Your task to perform on an android device: Search for bose soundsport free on costco, select the first entry, and add it to the cart. Image 0: 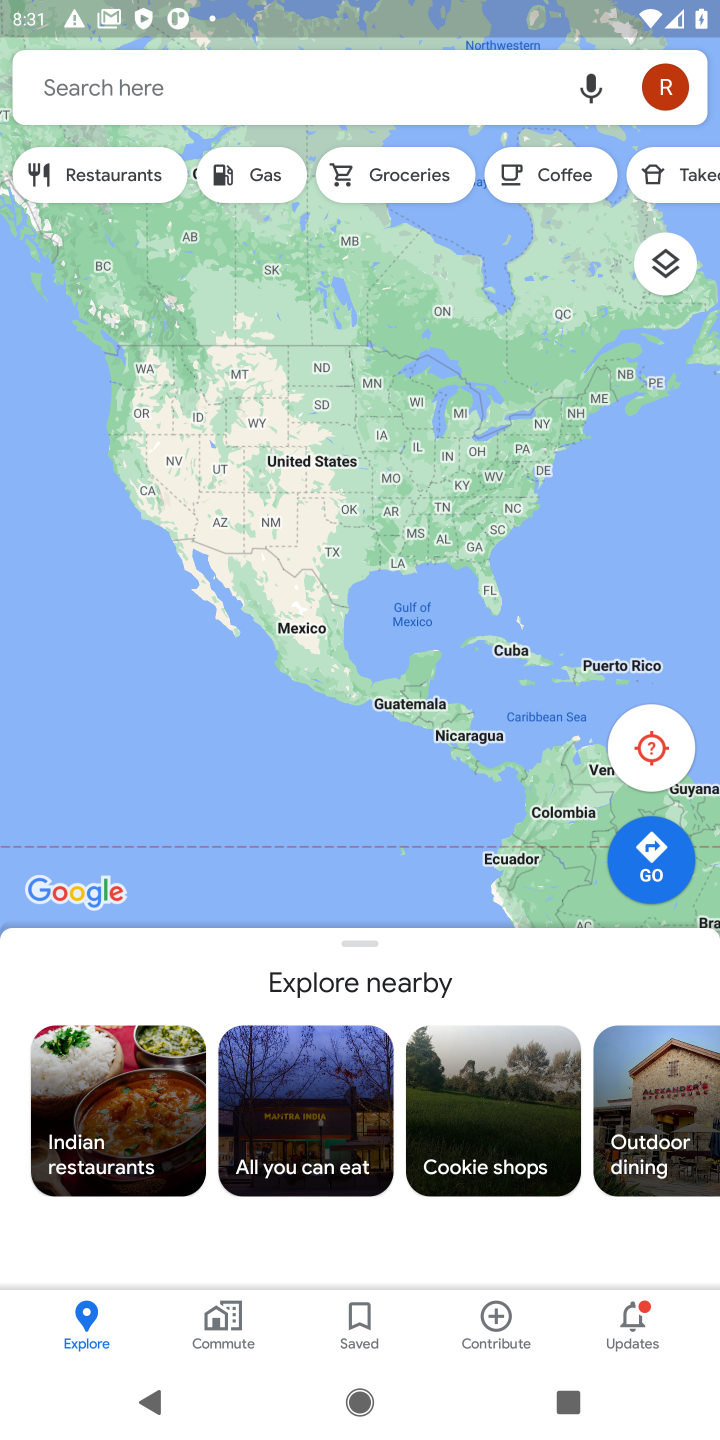
Step 0: press home button
Your task to perform on an android device: Search for bose soundsport free on costco, select the first entry, and add it to the cart. Image 1: 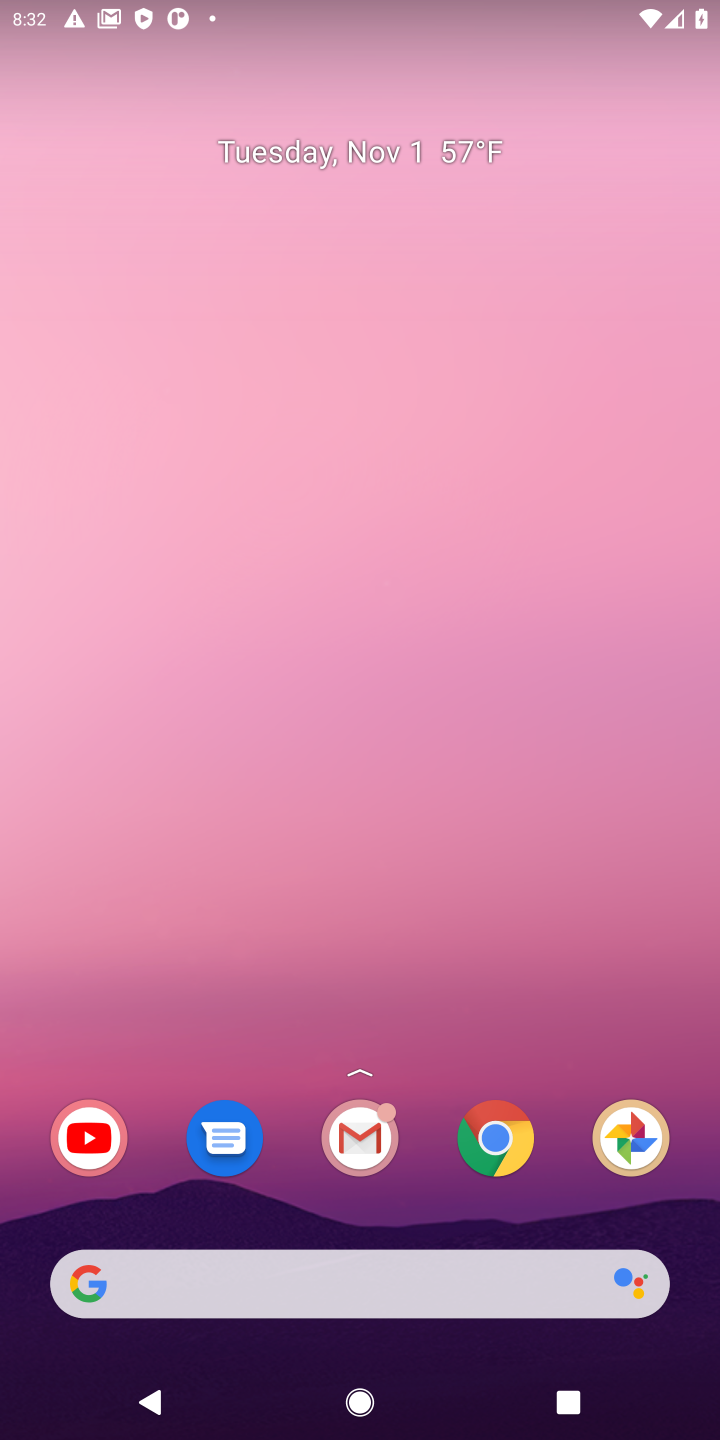
Step 1: click (480, 1158)
Your task to perform on an android device: Search for bose soundsport free on costco, select the first entry, and add it to the cart. Image 2: 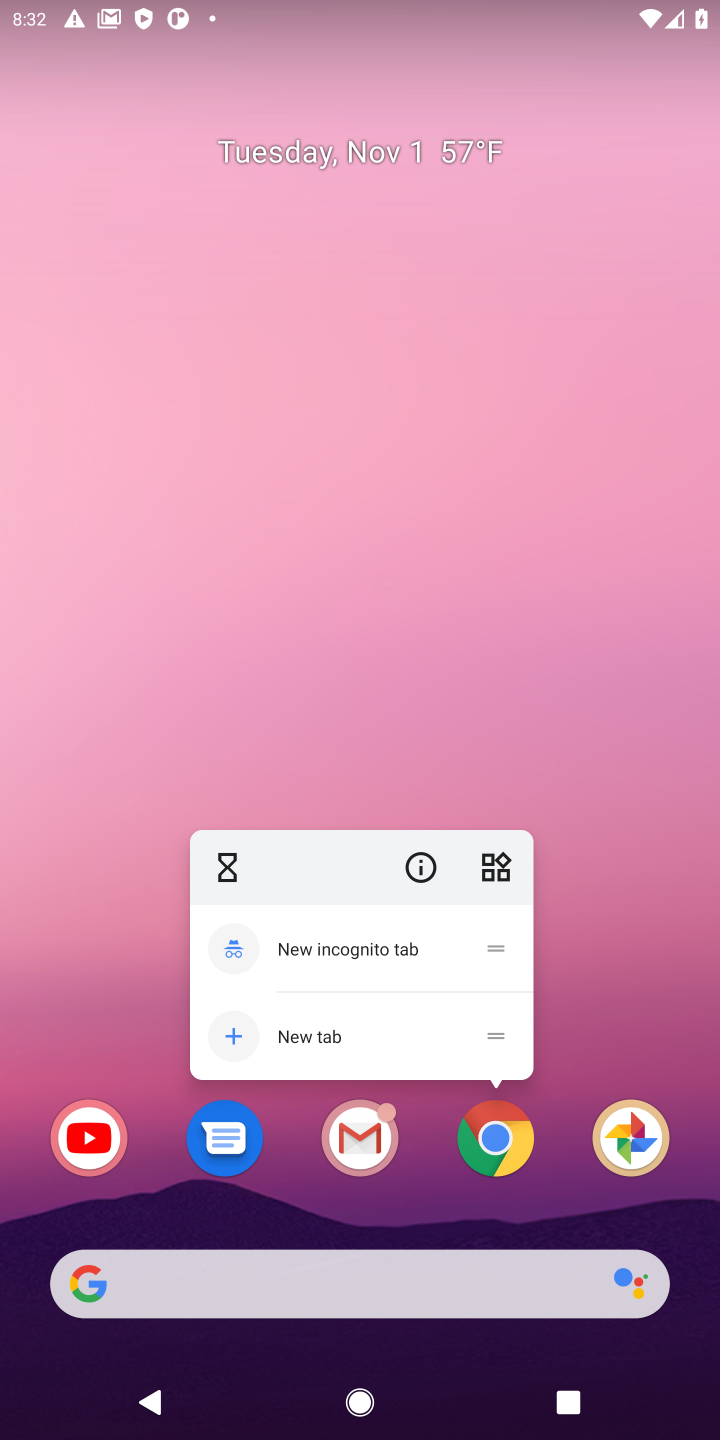
Step 2: click (510, 1131)
Your task to perform on an android device: Search for bose soundsport free on costco, select the first entry, and add it to the cart. Image 3: 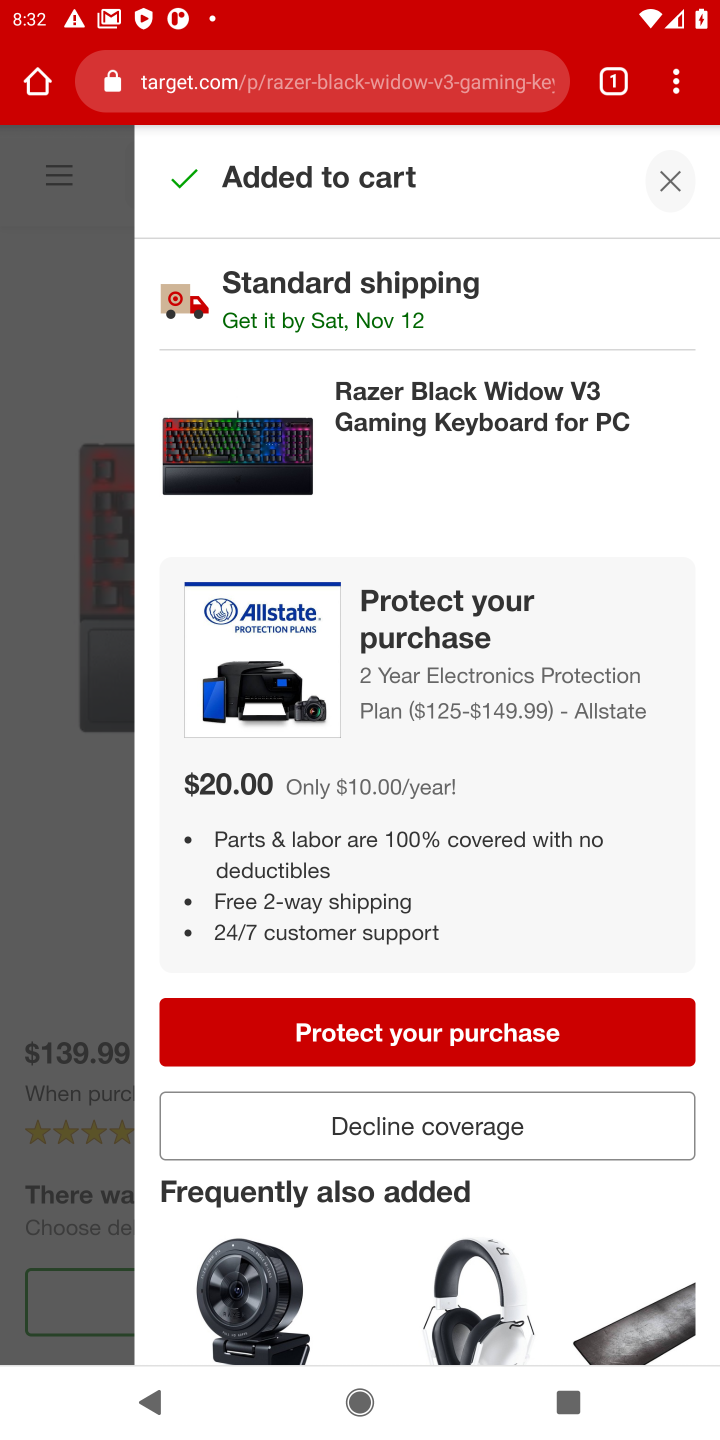
Step 3: click (358, 73)
Your task to perform on an android device: Search for bose soundsport free on costco, select the first entry, and add it to the cart. Image 4: 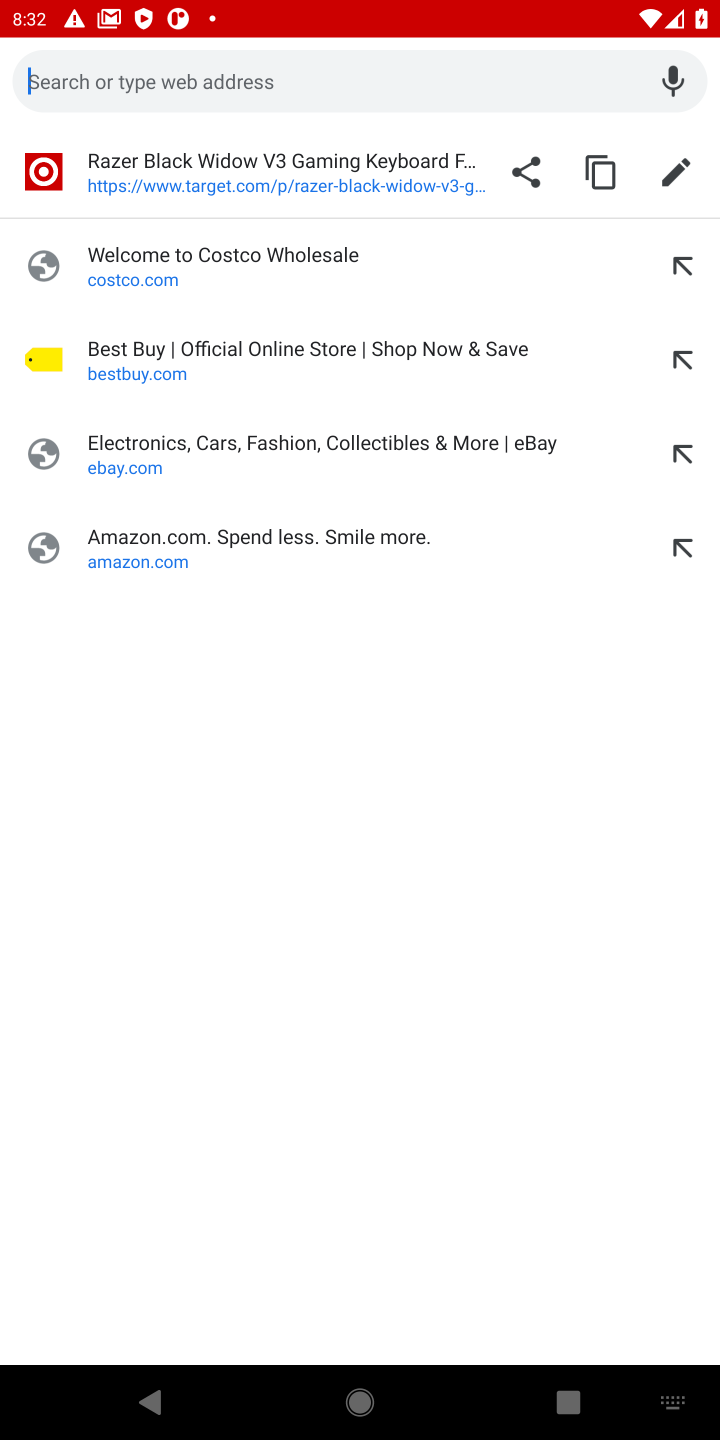
Step 4: click (156, 278)
Your task to perform on an android device: Search for bose soundsport free on costco, select the first entry, and add it to the cart. Image 5: 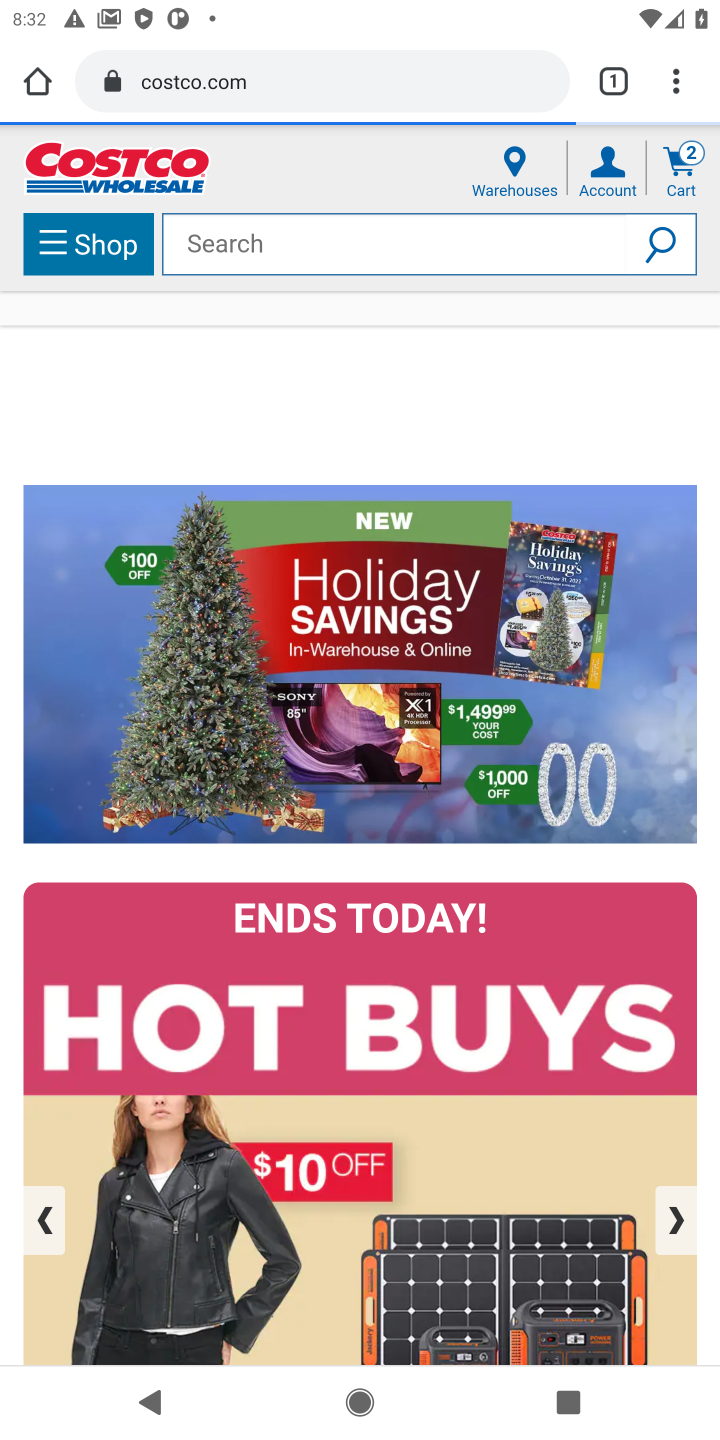
Step 5: click (220, 233)
Your task to perform on an android device: Search for bose soundsport free on costco, select the first entry, and add it to the cart. Image 6: 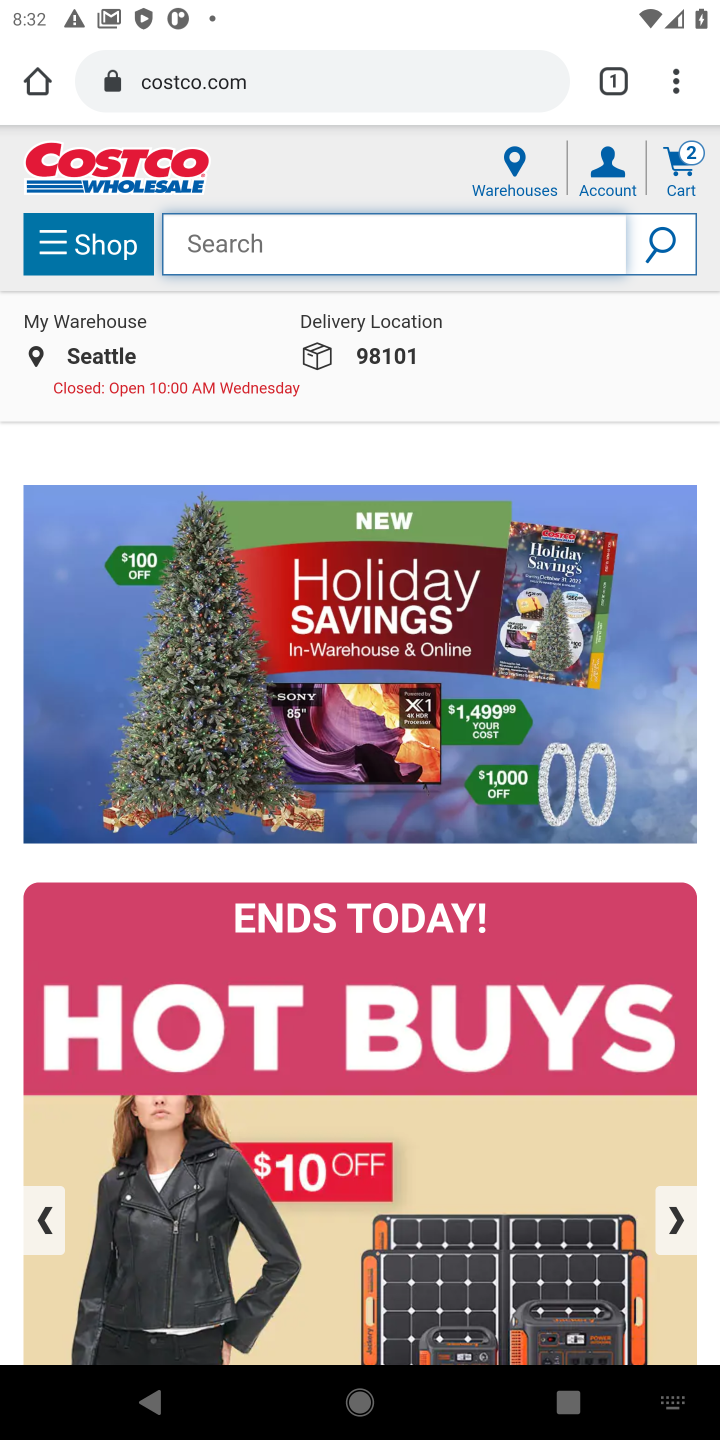
Step 6: type "bose soundsport free"
Your task to perform on an android device: Search for bose soundsport free on costco, select the first entry, and add it to the cart. Image 7: 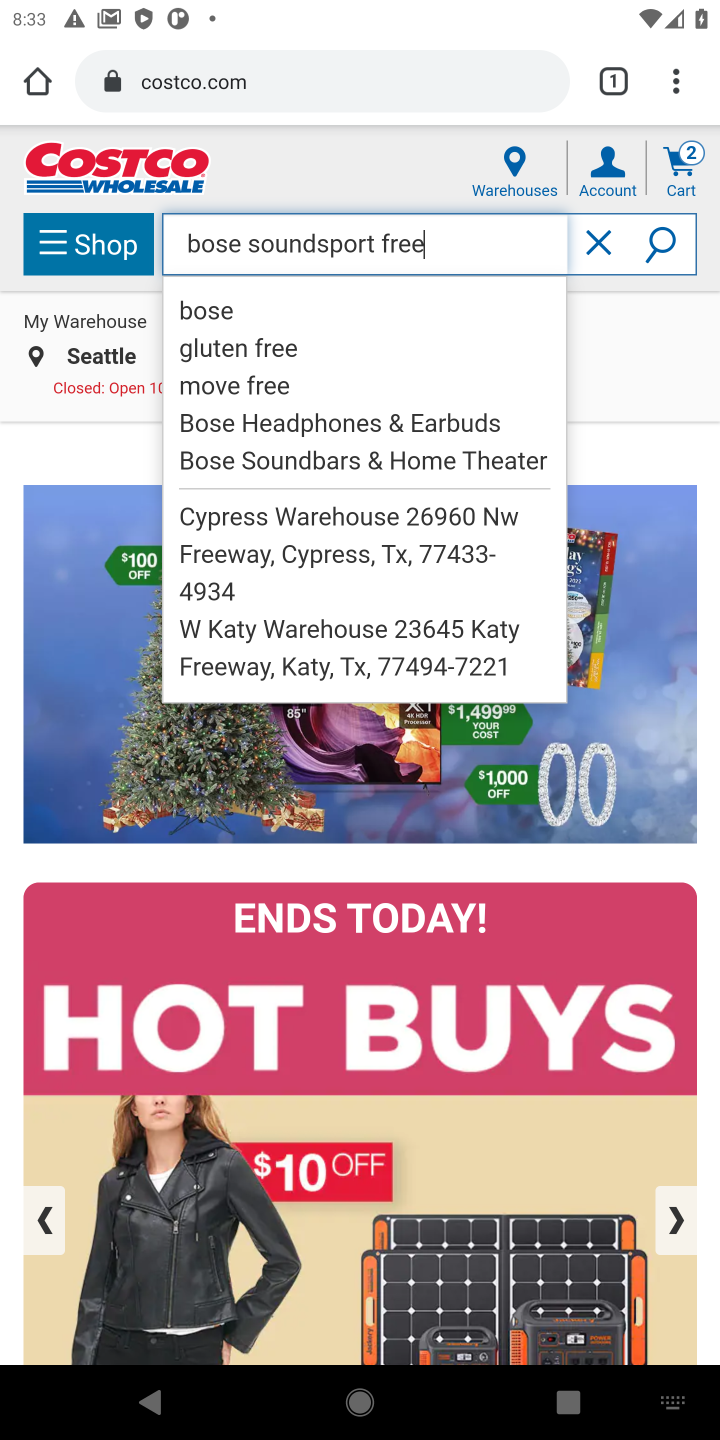
Step 7: click (652, 256)
Your task to perform on an android device: Search for bose soundsport free on costco, select the first entry, and add it to the cart. Image 8: 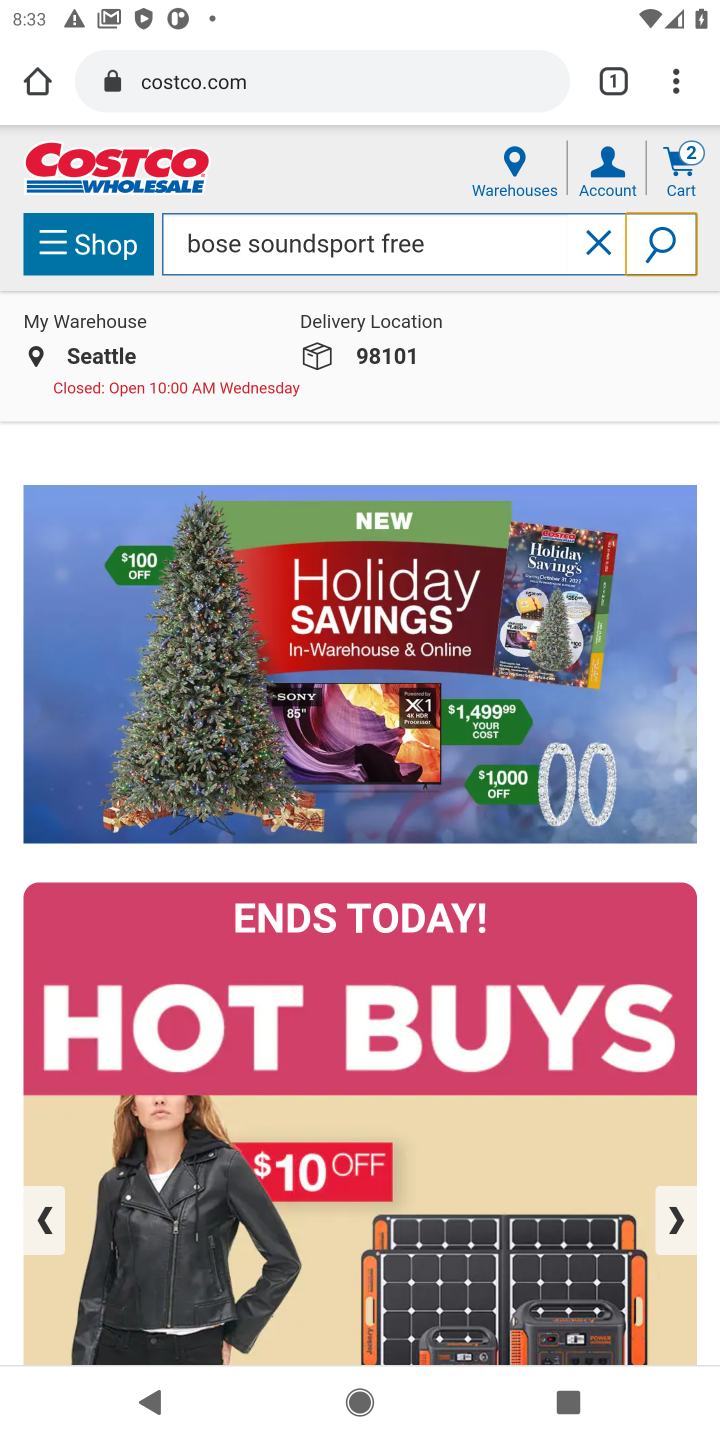
Step 8: click (663, 244)
Your task to perform on an android device: Search for bose soundsport free on costco, select the first entry, and add it to the cart. Image 9: 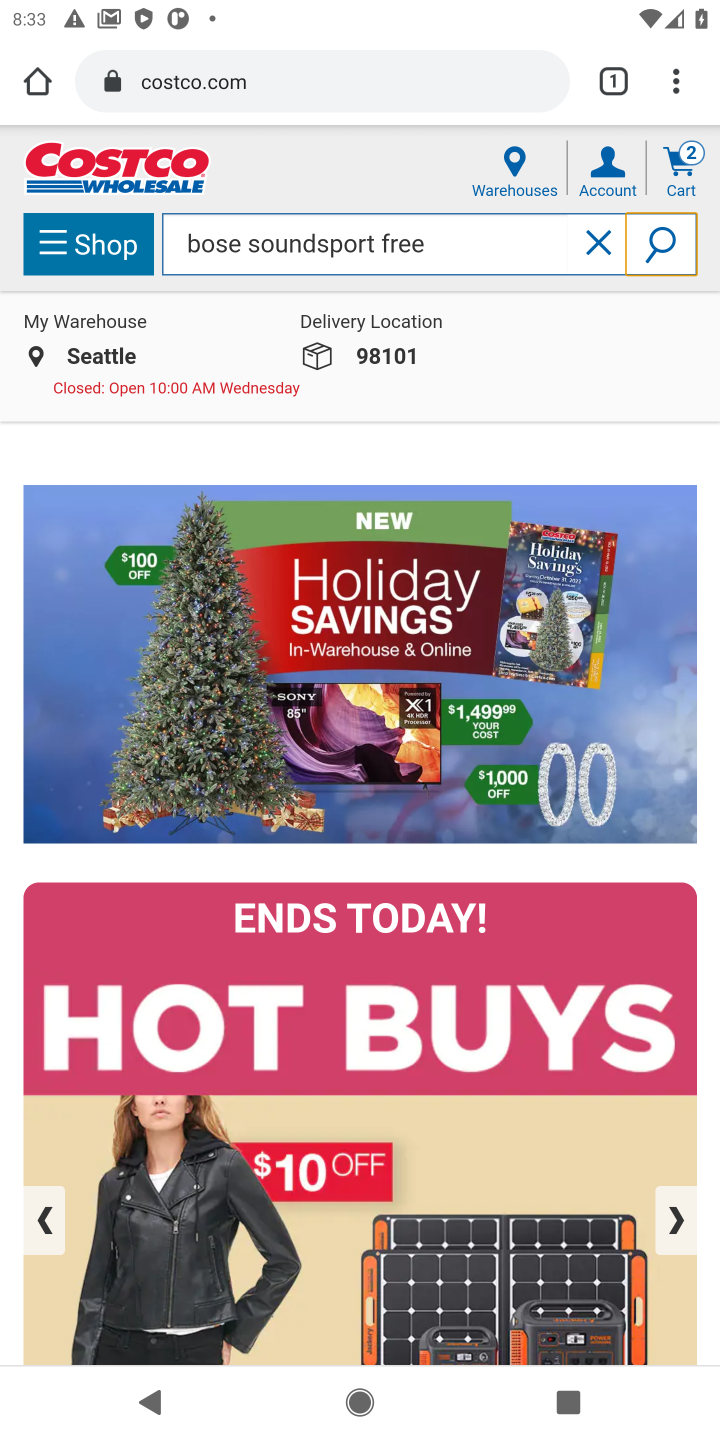
Step 9: click (661, 244)
Your task to perform on an android device: Search for bose soundsport free on costco, select the first entry, and add it to the cart. Image 10: 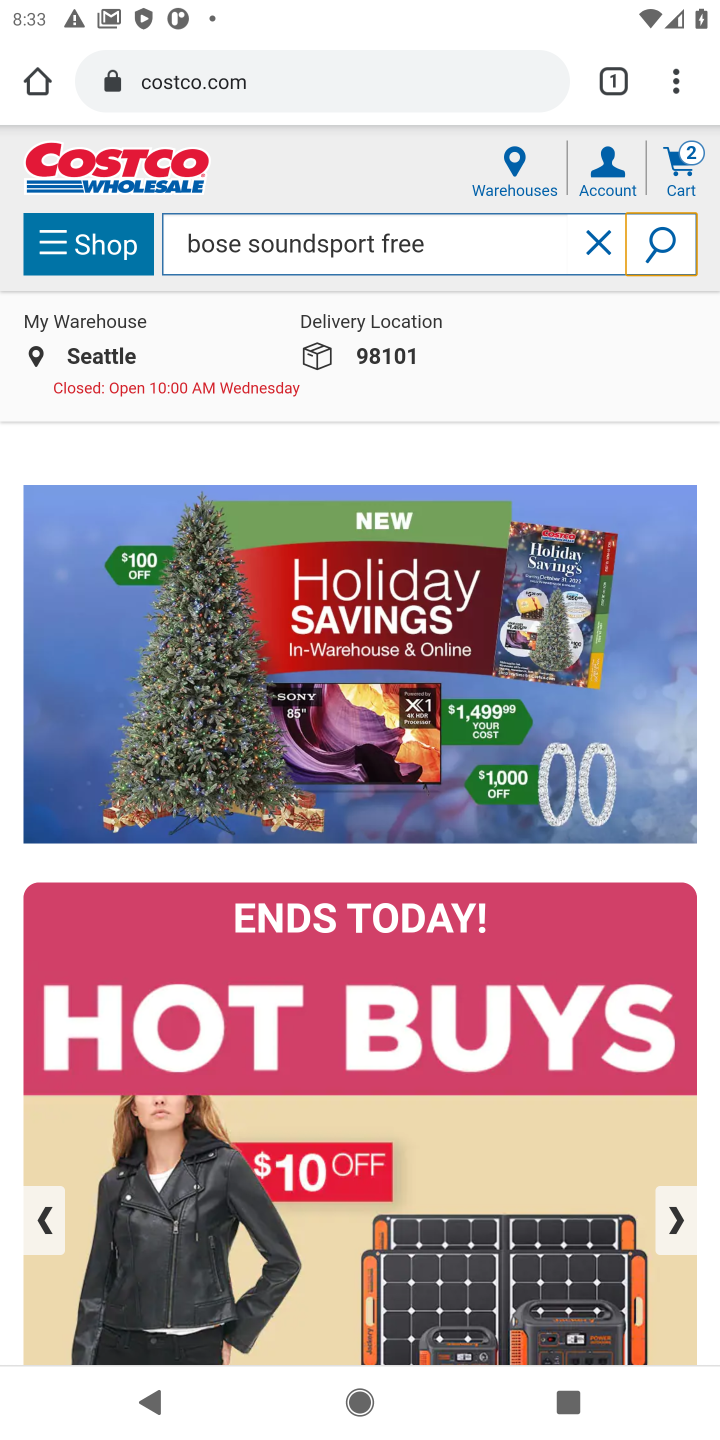
Step 10: drag from (238, 993) to (263, 530)
Your task to perform on an android device: Search for bose soundsport free on costco, select the first entry, and add it to the cart. Image 11: 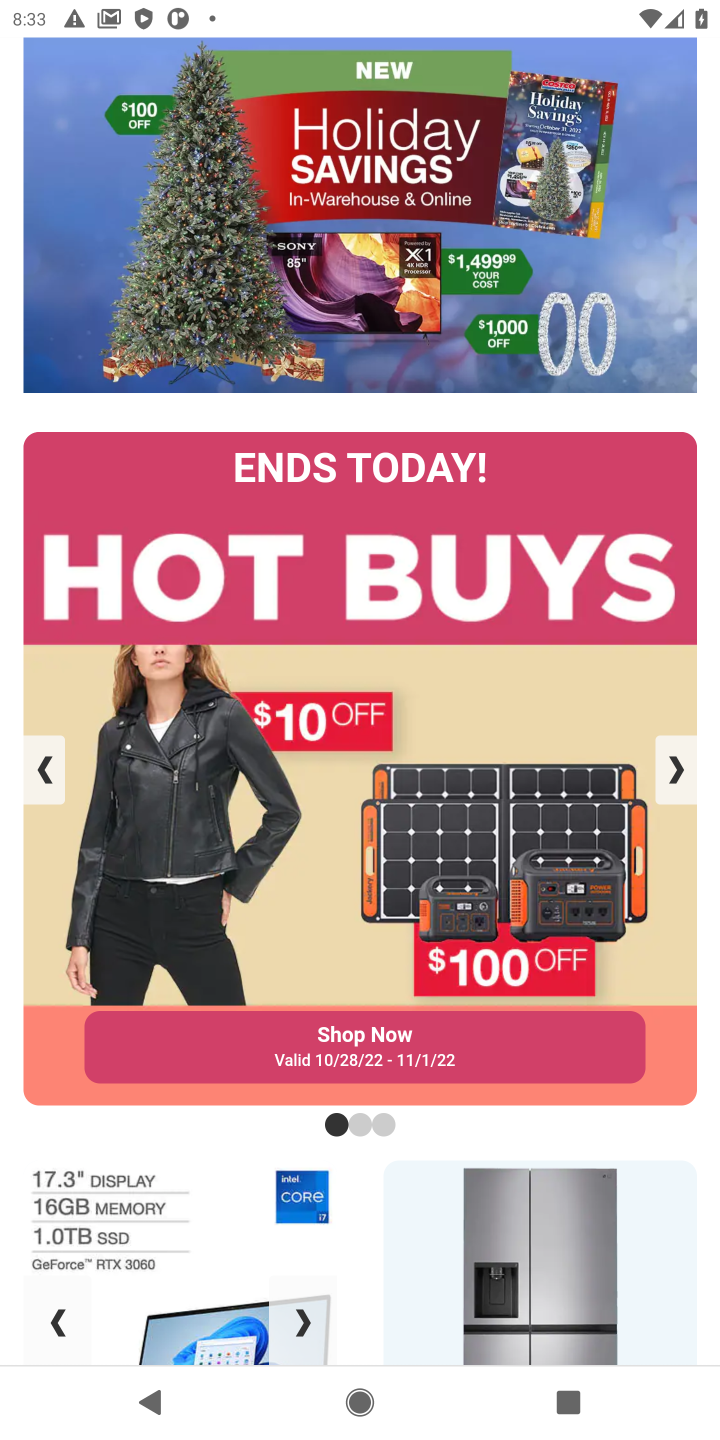
Step 11: drag from (239, 957) to (256, 515)
Your task to perform on an android device: Search for bose soundsport free on costco, select the first entry, and add it to the cart. Image 12: 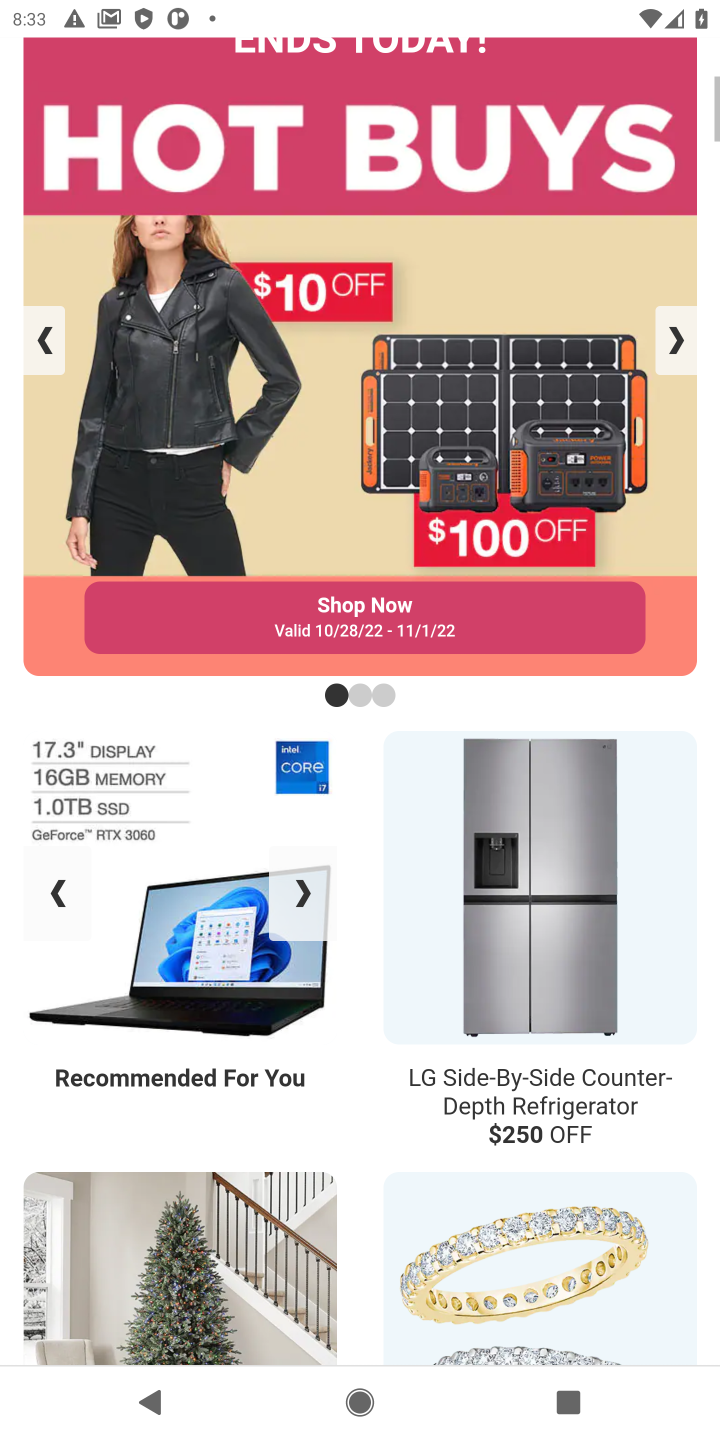
Step 12: drag from (256, 515) to (258, 1399)
Your task to perform on an android device: Search for bose soundsport free on costco, select the first entry, and add it to the cart. Image 13: 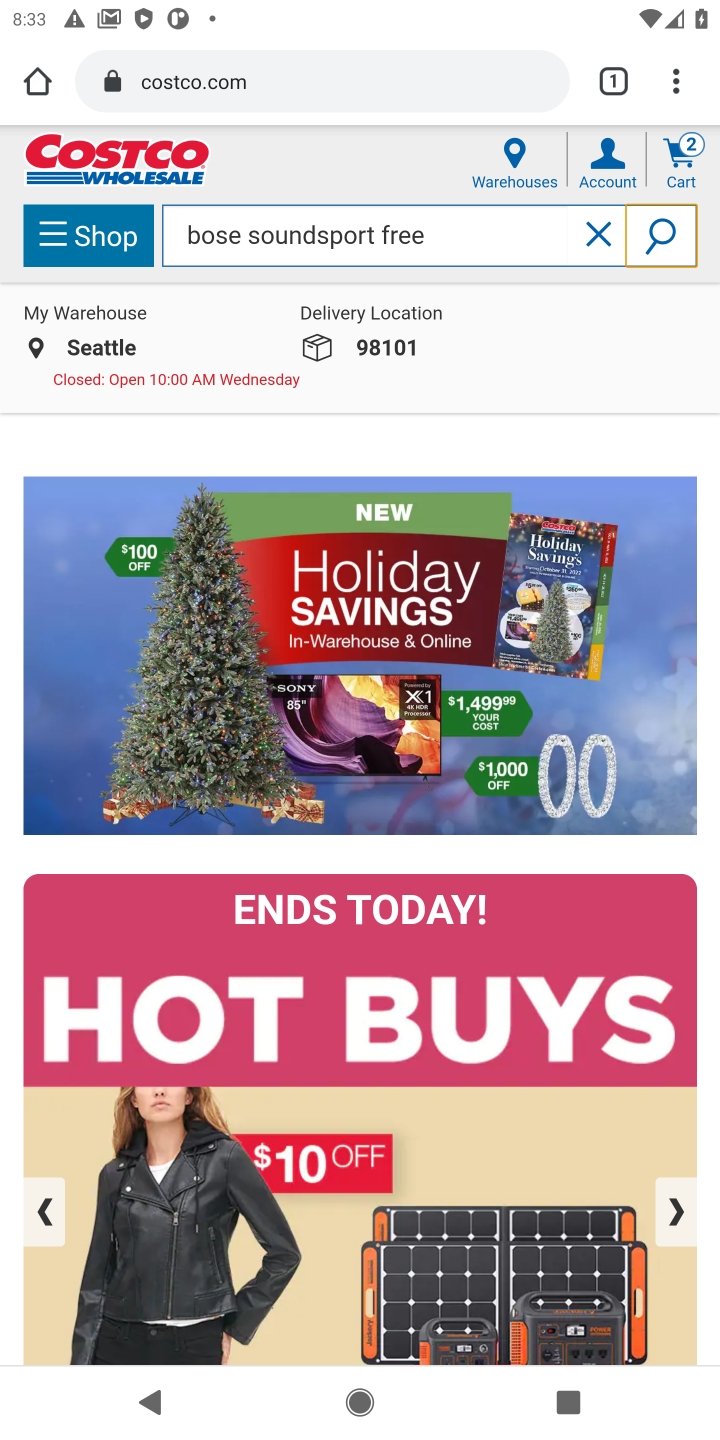
Step 13: click (654, 243)
Your task to perform on an android device: Search for bose soundsport free on costco, select the first entry, and add it to the cart. Image 14: 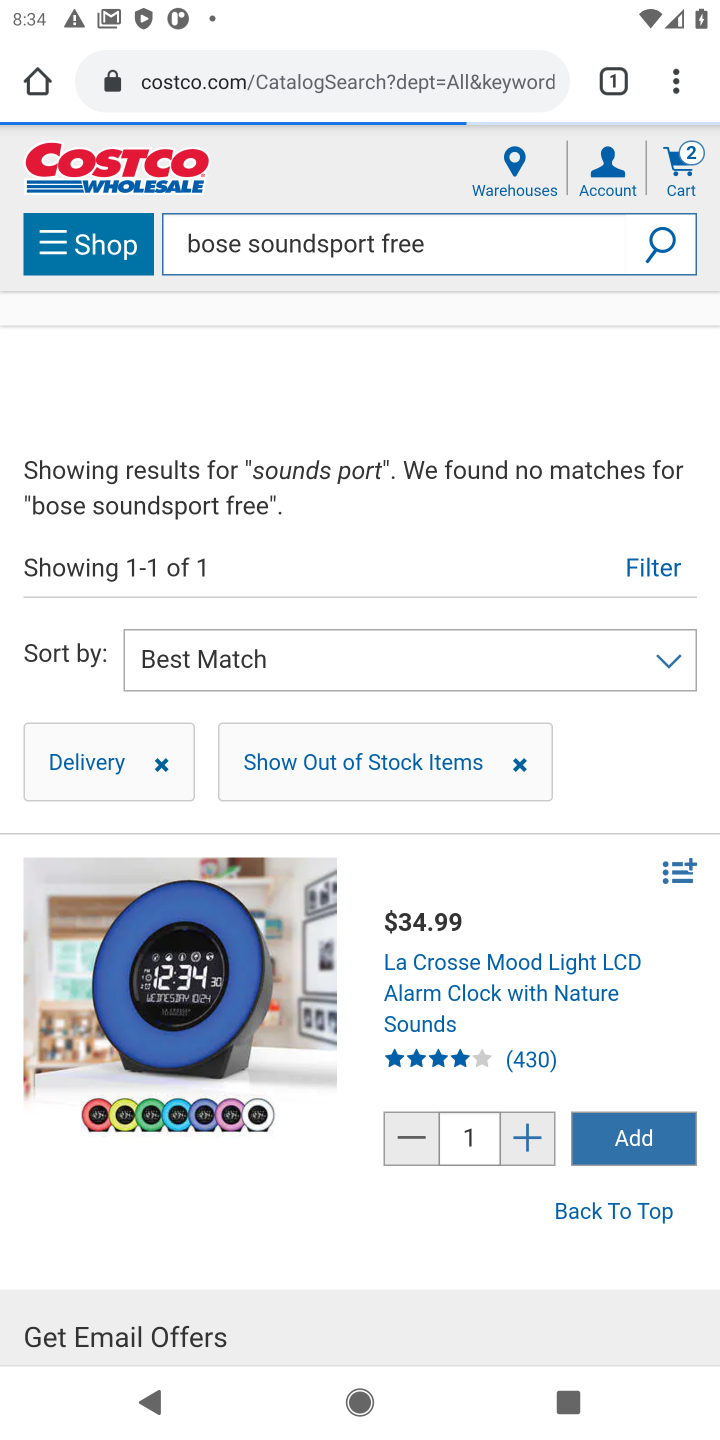
Step 14: task complete